Your task to perform on an android device: allow notifications from all sites in the chrome app Image 0: 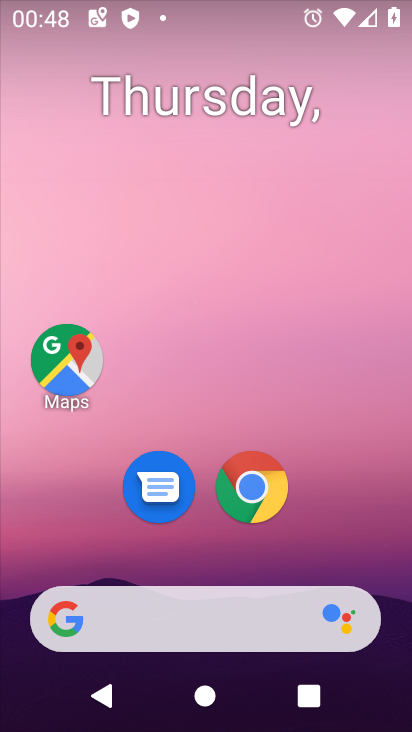
Step 0: click (251, 491)
Your task to perform on an android device: allow notifications from all sites in the chrome app Image 1: 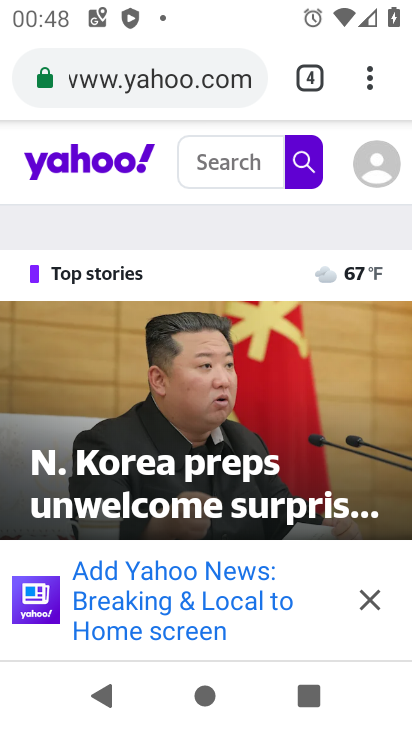
Step 1: click (376, 79)
Your task to perform on an android device: allow notifications from all sites in the chrome app Image 2: 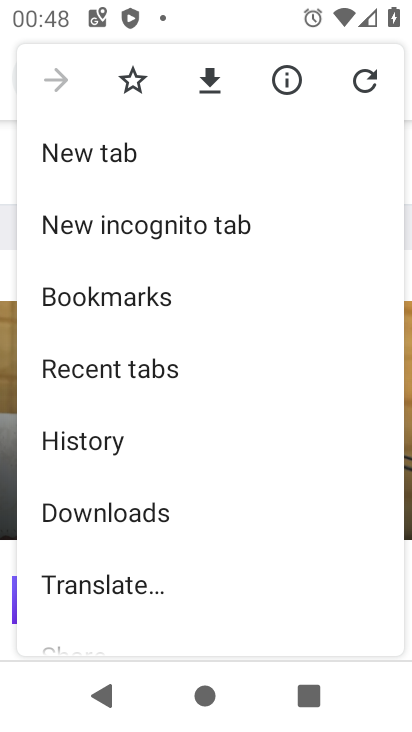
Step 2: drag from (159, 525) to (126, 143)
Your task to perform on an android device: allow notifications from all sites in the chrome app Image 3: 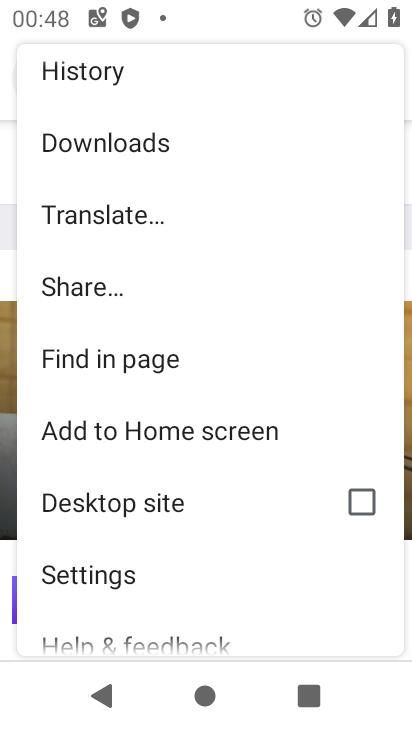
Step 3: drag from (205, 571) to (168, 296)
Your task to perform on an android device: allow notifications from all sites in the chrome app Image 4: 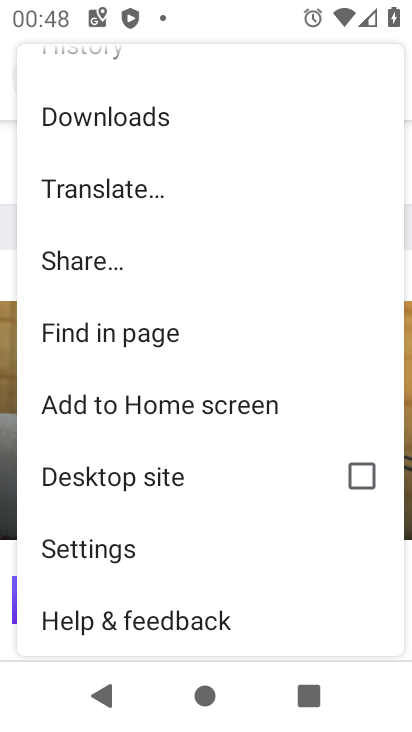
Step 4: click (95, 551)
Your task to perform on an android device: allow notifications from all sites in the chrome app Image 5: 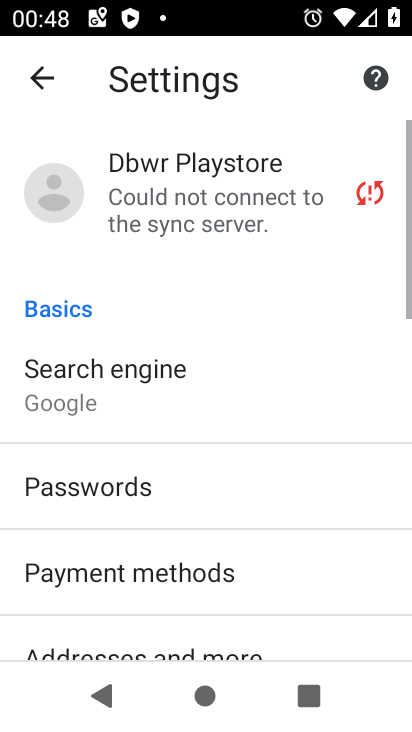
Step 5: drag from (95, 551) to (67, 156)
Your task to perform on an android device: allow notifications from all sites in the chrome app Image 6: 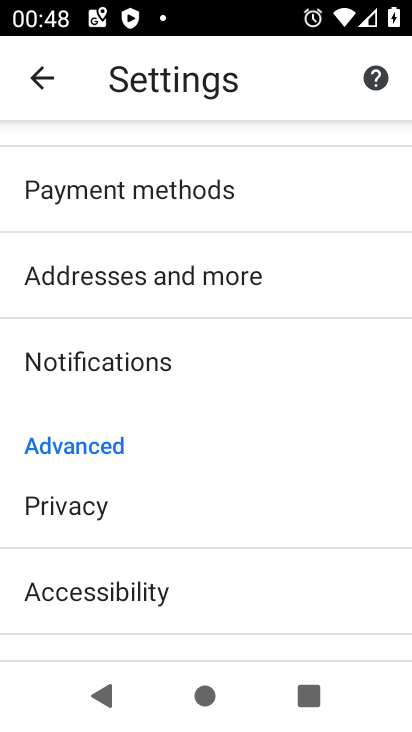
Step 6: drag from (232, 588) to (178, 153)
Your task to perform on an android device: allow notifications from all sites in the chrome app Image 7: 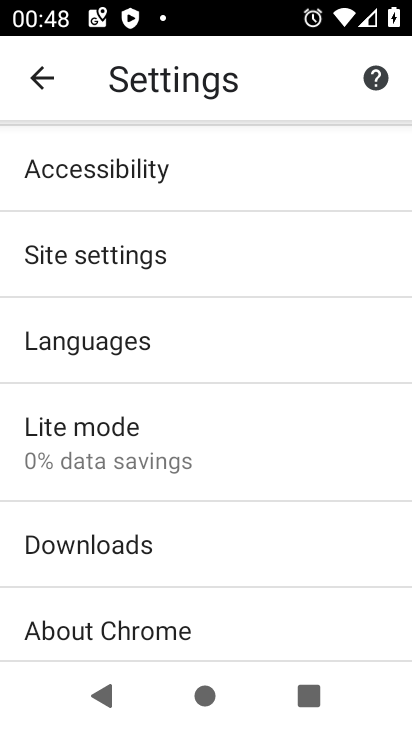
Step 7: click (61, 264)
Your task to perform on an android device: allow notifications from all sites in the chrome app Image 8: 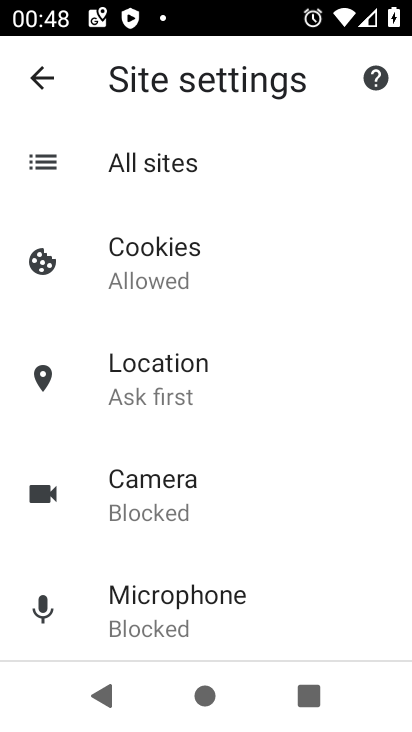
Step 8: drag from (288, 533) to (256, 255)
Your task to perform on an android device: allow notifications from all sites in the chrome app Image 9: 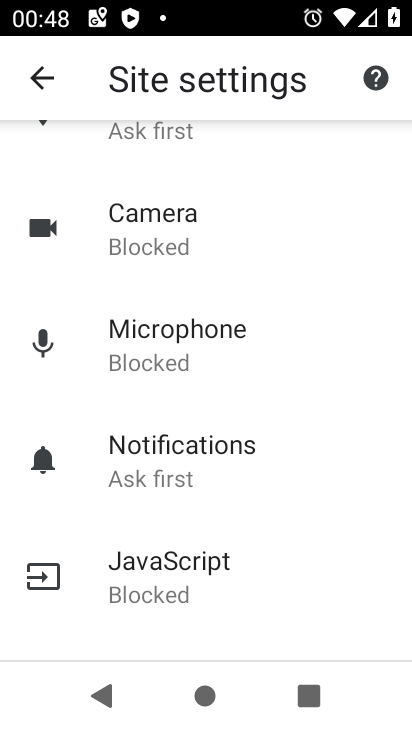
Step 9: click (151, 461)
Your task to perform on an android device: allow notifications from all sites in the chrome app Image 10: 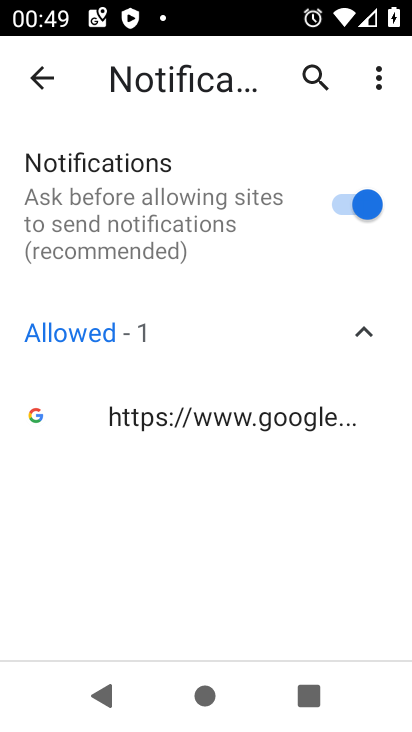
Step 10: task complete